Your task to perform on an android device: turn notification dots off Image 0: 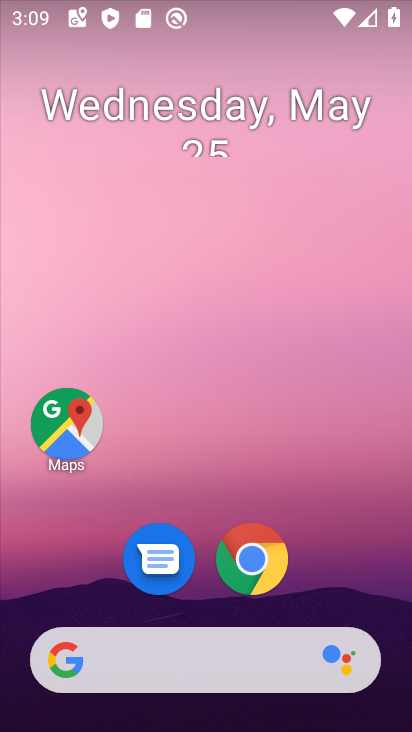
Step 0: drag from (194, 605) to (246, 102)
Your task to perform on an android device: turn notification dots off Image 1: 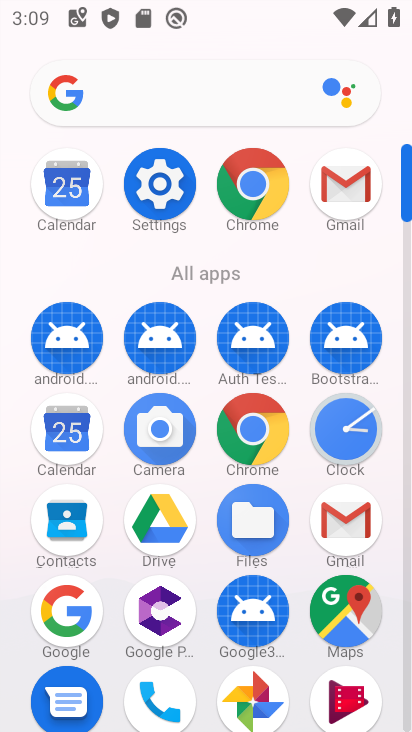
Step 1: click (156, 175)
Your task to perform on an android device: turn notification dots off Image 2: 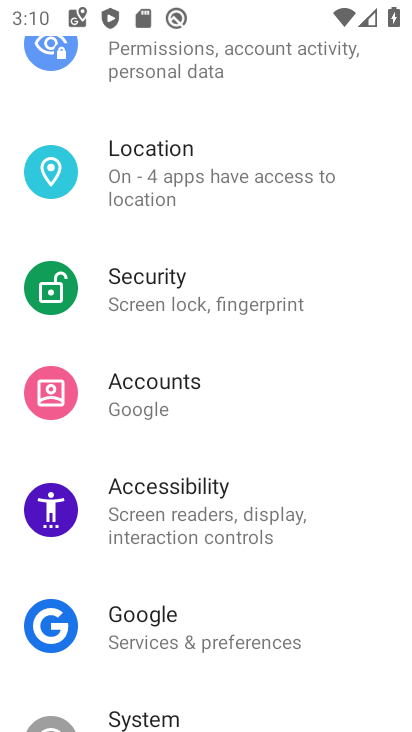
Step 2: drag from (182, 102) to (202, 638)
Your task to perform on an android device: turn notification dots off Image 3: 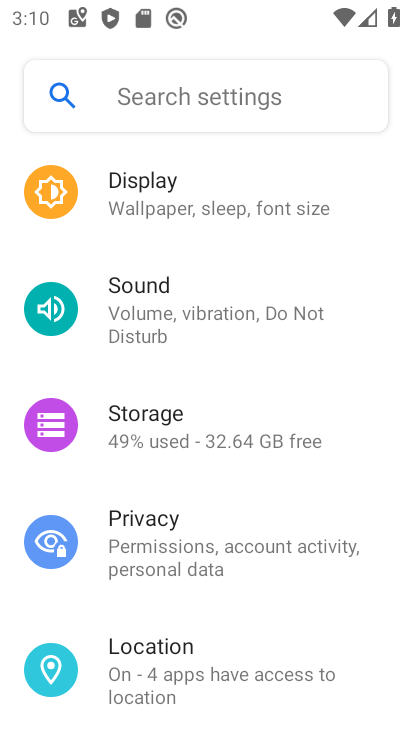
Step 3: drag from (213, 183) to (145, 658)
Your task to perform on an android device: turn notification dots off Image 4: 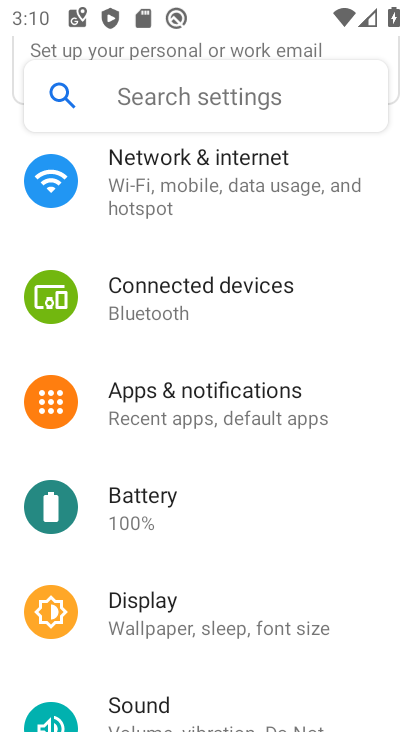
Step 4: click (214, 401)
Your task to perform on an android device: turn notification dots off Image 5: 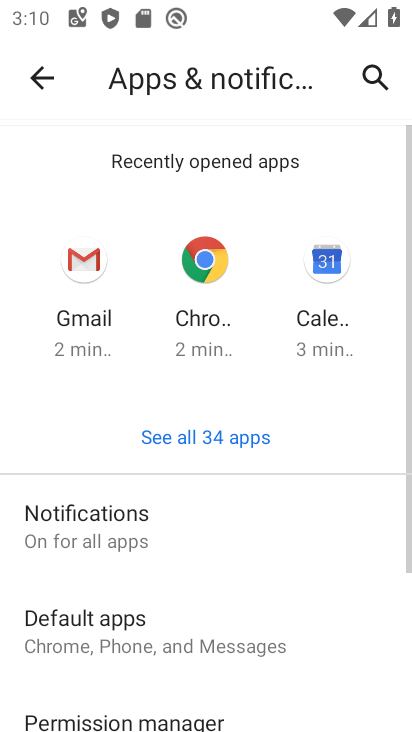
Step 5: click (159, 517)
Your task to perform on an android device: turn notification dots off Image 6: 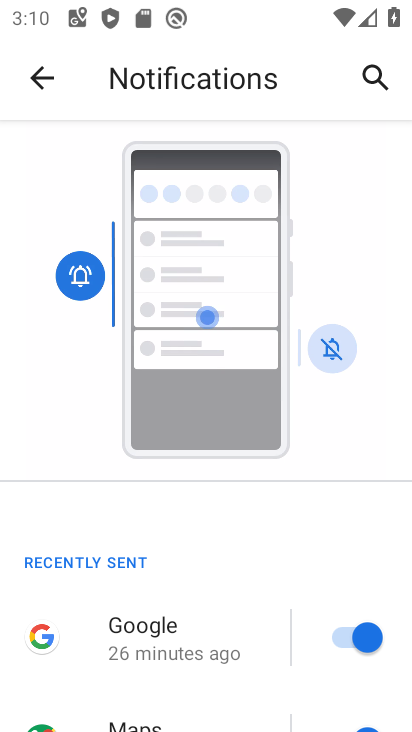
Step 6: drag from (222, 687) to (312, 215)
Your task to perform on an android device: turn notification dots off Image 7: 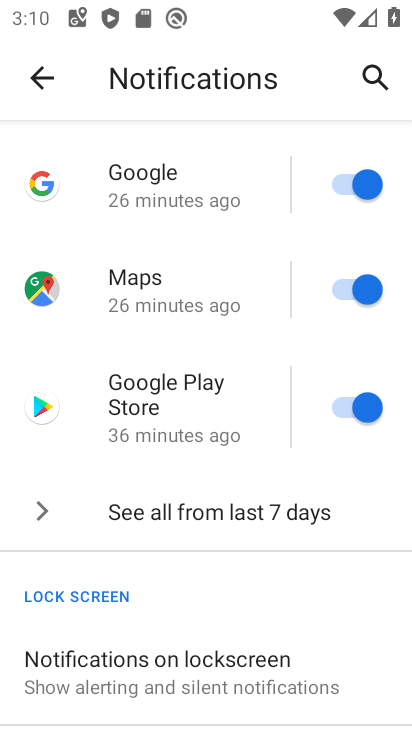
Step 7: drag from (238, 636) to (263, 146)
Your task to perform on an android device: turn notification dots off Image 8: 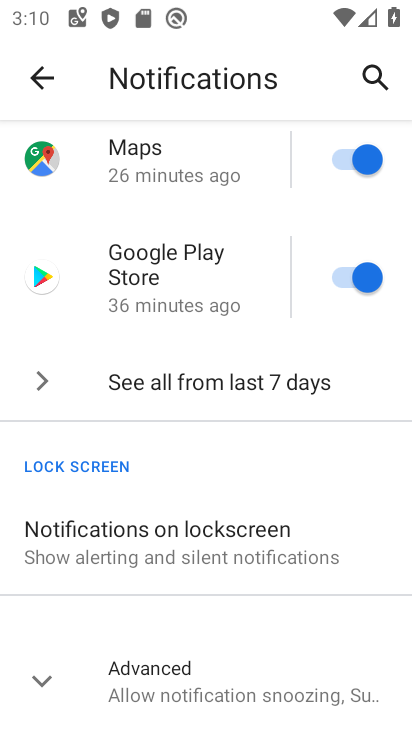
Step 8: click (39, 673)
Your task to perform on an android device: turn notification dots off Image 9: 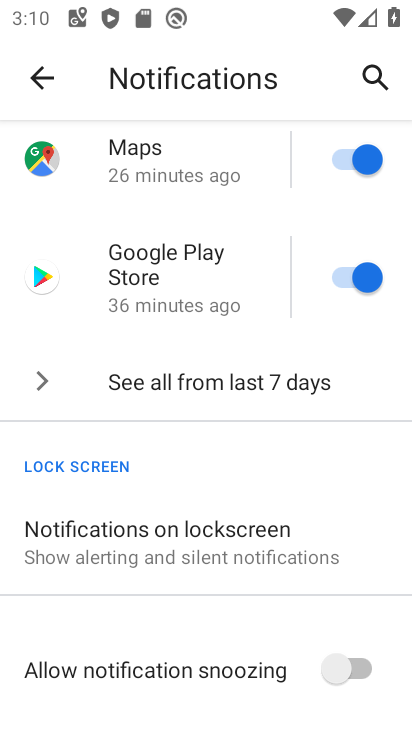
Step 9: drag from (191, 691) to (244, 114)
Your task to perform on an android device: turn notification dots off Image 10: 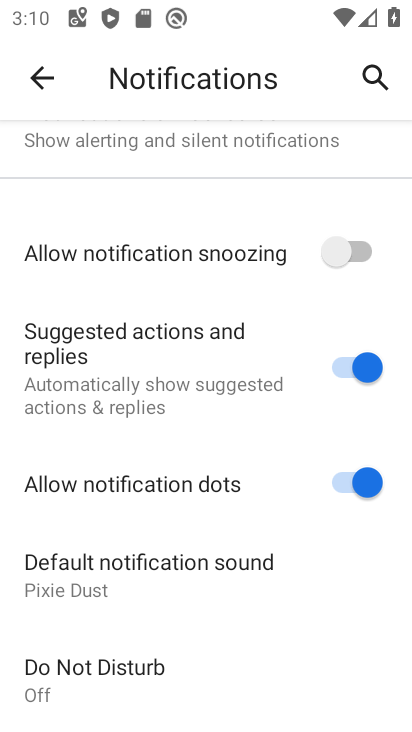
Step 10: drag from (218, 679) to (257, 184)
Your task to perform on an android device: turn notification dots off Image 11: 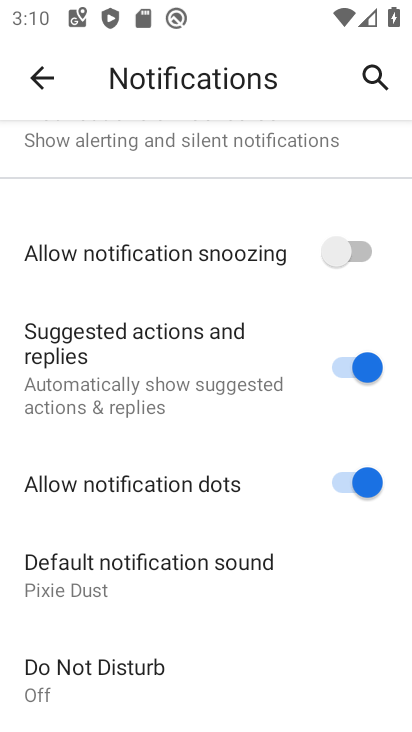
Step 11: click (350, 476)
Your task to perform on an android device: turn notification dots off Image 12: 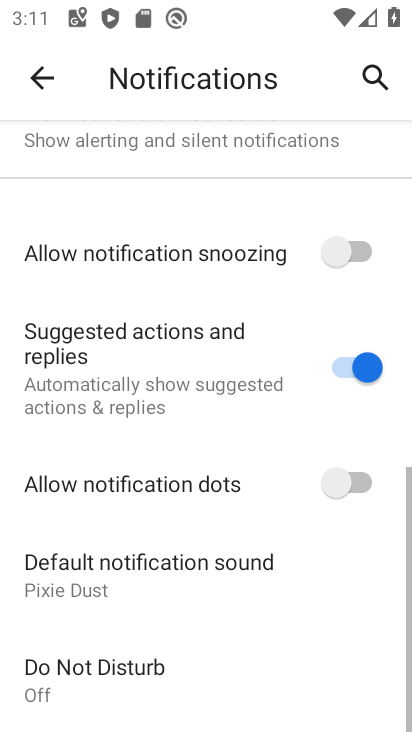
Step 12: task complete